Your task to perform on an android device: clear history in the chrome app Image 0: 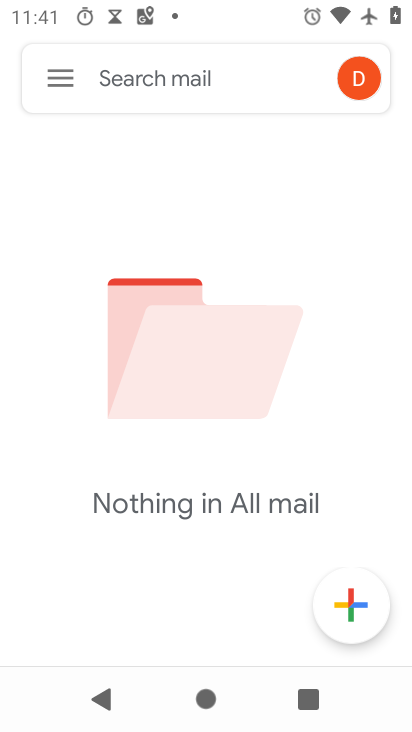
Step 0: press back button
Your task to perform on an android device: clear history in the chrome app Image 1: 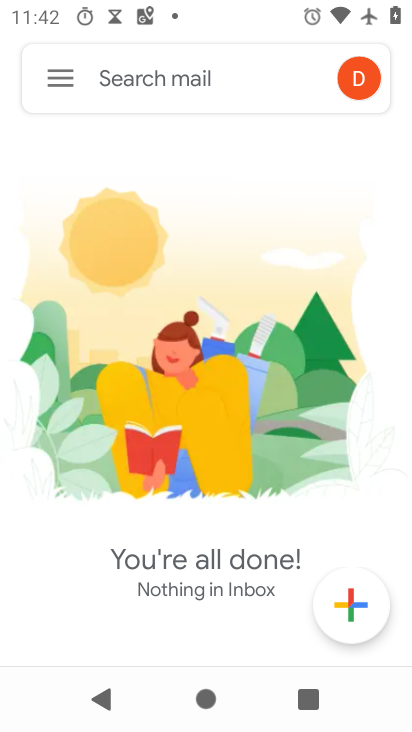
Step 1: press back button
Your task to perform on an android device: clear history in the chrome app Image 2: 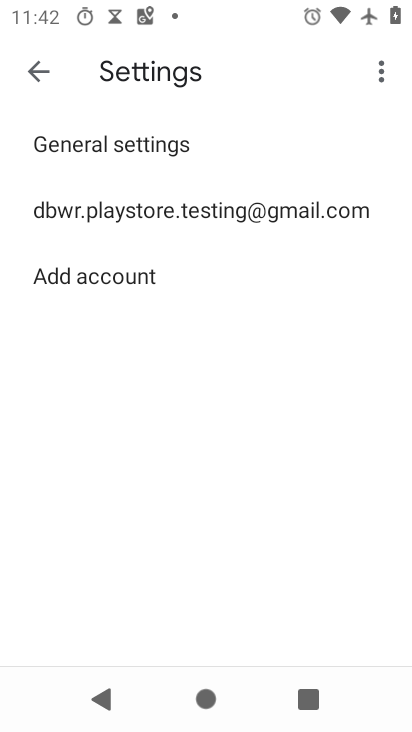
Step 2: press home button
Your task to perform on an android device: clear history in the chrome app Image 3: 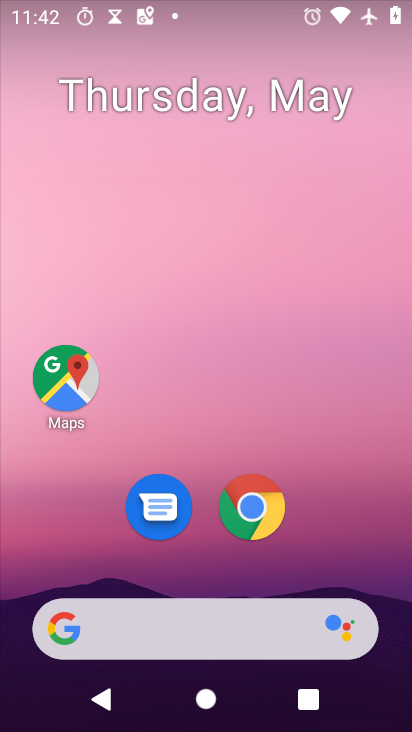
Step 3: drag from (358, 518) to (290, 44)
Your task to perform on an android device: clear history in the chrome app Image 4: 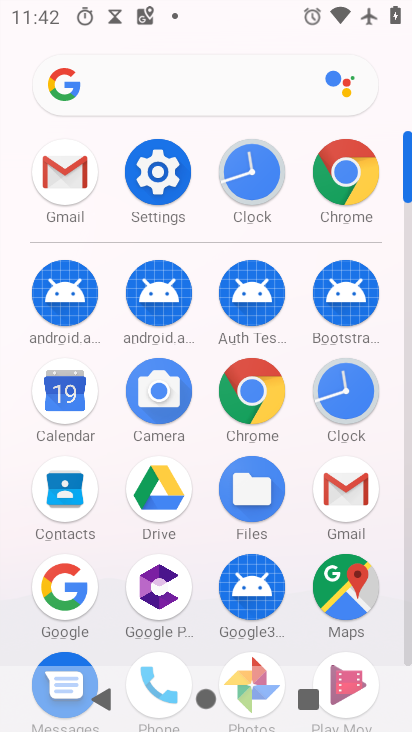
Step 4: drag from (28, 571) to (47, 268)
Your task to perform on an android device: clear history in the chrome app Image 5: 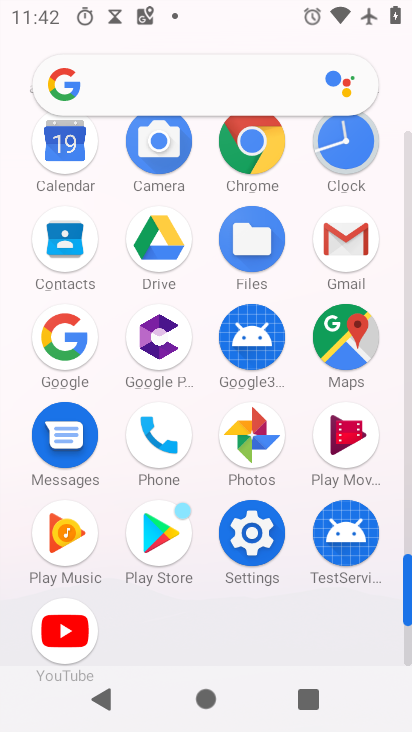
Step 5: click (250, 130)
Your task to perform on an android device: clear history in the chrome app Image 6: 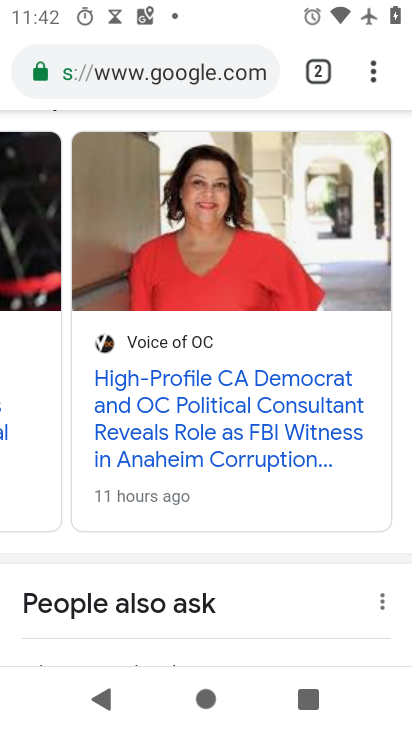
Step 6: drag from (377, 77) to (122, 399)
Your task to perform on an android device: clear history in the chrome app Image 7: 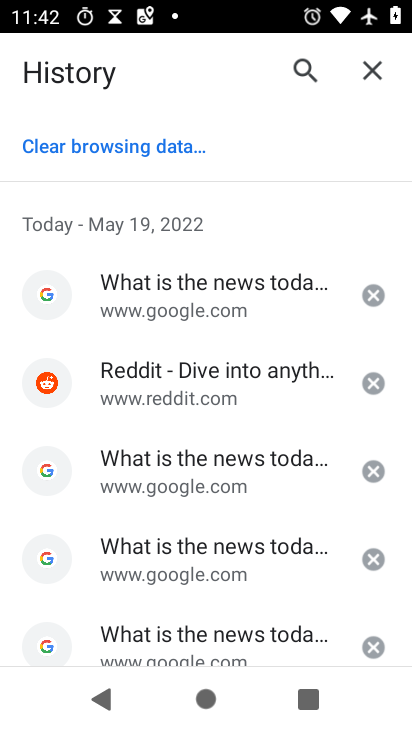
Step 7: click (153, 138)
Your task to perform on an android device: clear history in the chrome app Image 8: 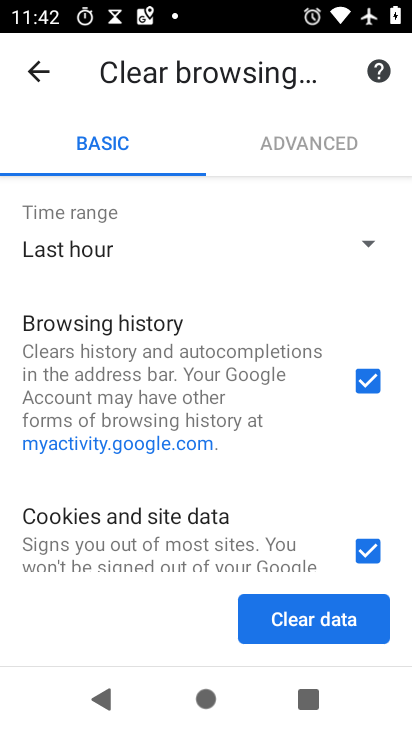
Step 8: click (364, 549)
Your task to perform on an android device: clear history in the chrome app Image 9: 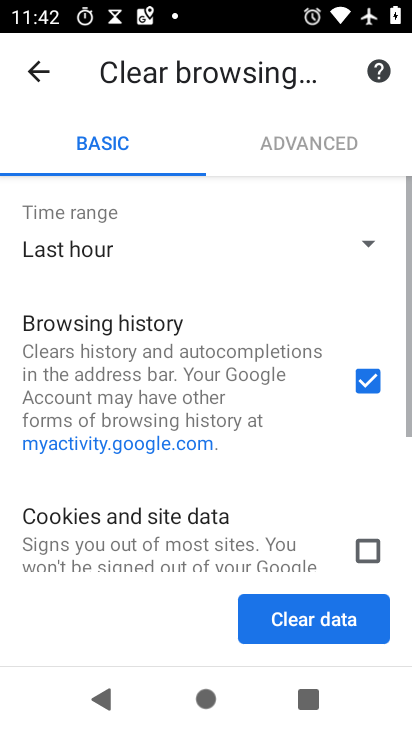
Step 9: drag from (279, 520) to (276, 320)
Your task to perform on an android device: clear history in the chrome app Image 10: 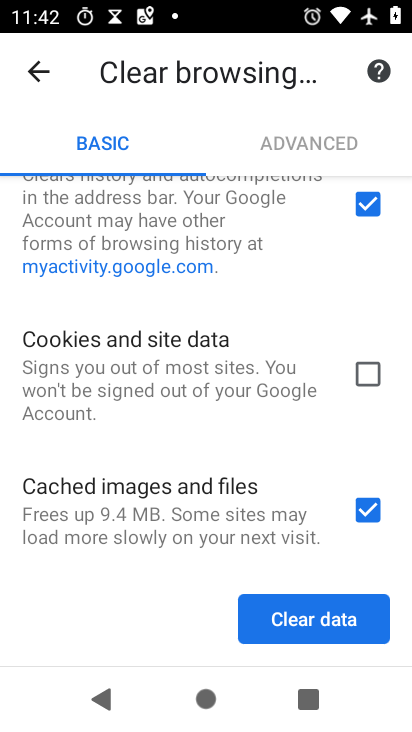
Step 10: click (375, 503)
Your task to perform on an android device: clear history in the chrome app Image 11: 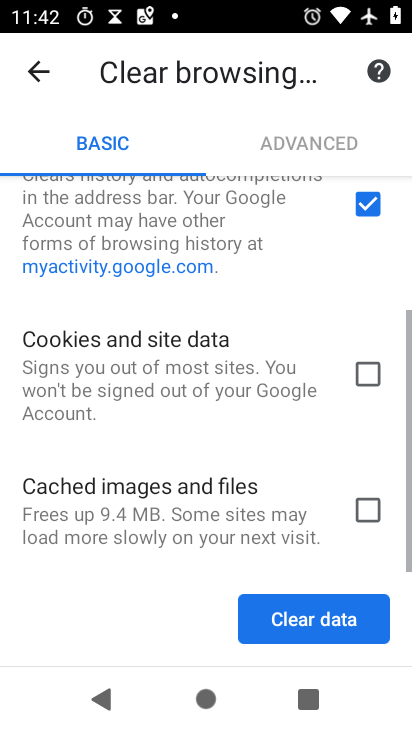
Step 11: click (293, 617)
Your task to perform on an android device: clear history in the chrome app Image 12: 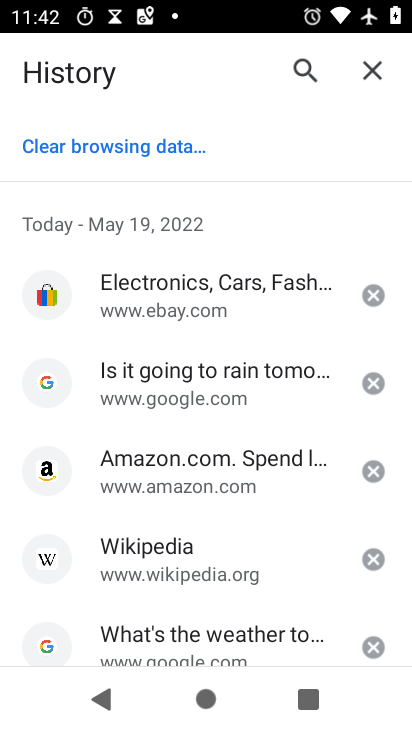
Step 12: click (150, 141)
Your task to perform on an android device: clear history in the chrome app Image 13: 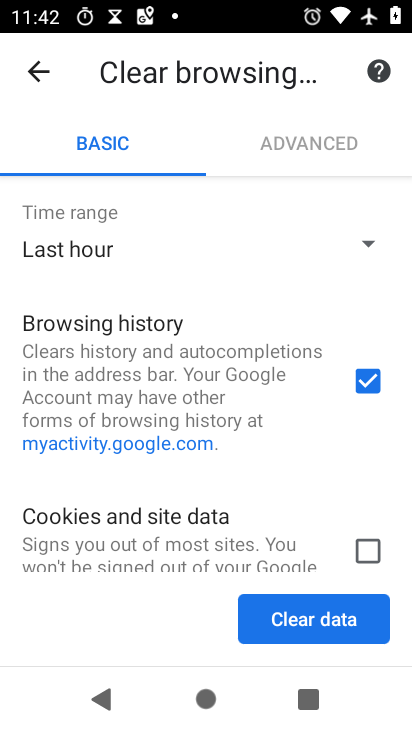
Step 13: click (306, 618)
Your task to perform on an android device: clear history in the chrome app Image 14: 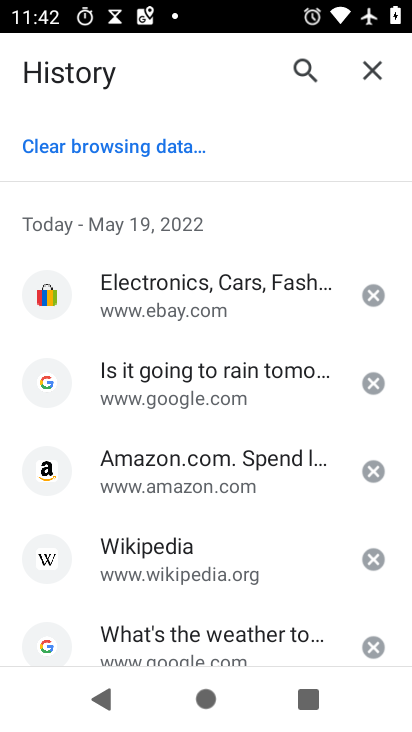
Step 14: task complete